Your task to perform on an android device: Is it going to rain this weekend? Image 0: 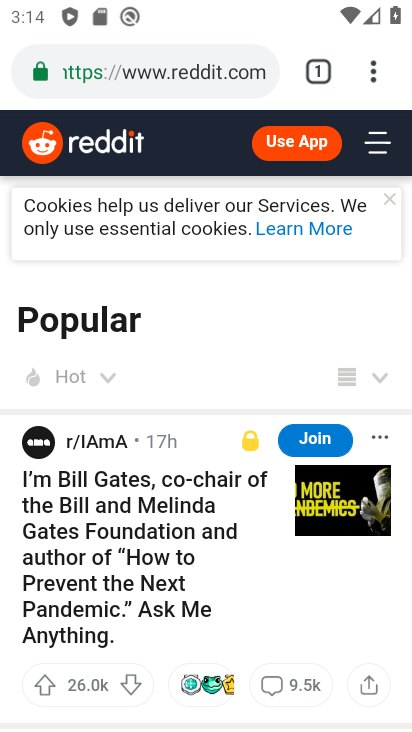
Step 0: press home button
Your task to perform on an android device: Is it going to rain this weekend? Image 1: 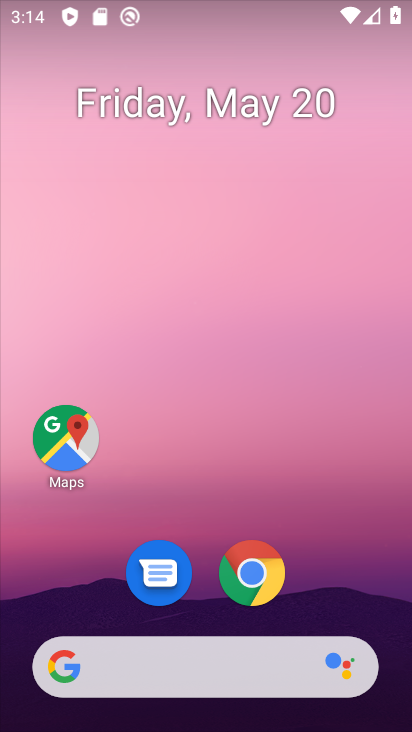
Step 1: drag from (203, 628) to (119, 41)
Your task to perform on an android device: Is it going to rain this weekend? Image 2: 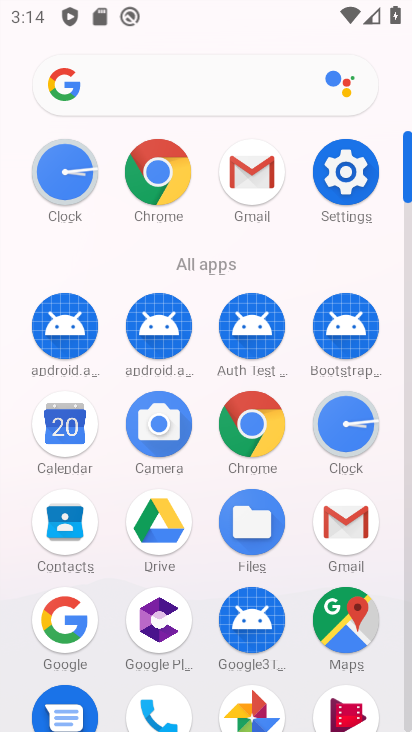
Step 2: click (66, 621)
Your task to perform on an android device: Is it going to rain this weekend? Image 3: 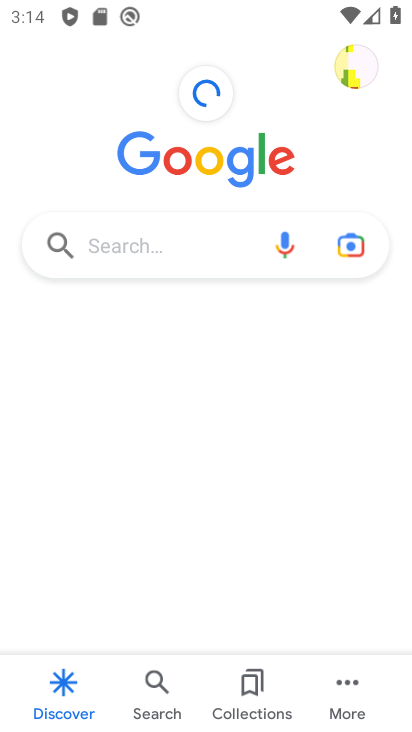
Step 3: click (124, 259)
Your task to perform on an android device: Is it going to rain this weekend? Image 4: 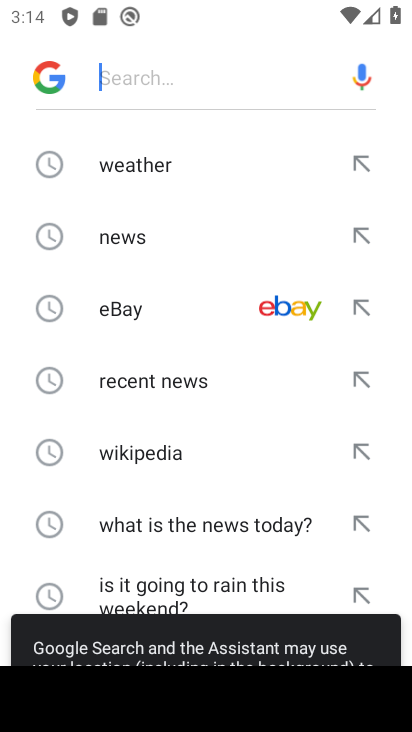
Step 4: click (144, 169)
Your task to perform on an android device: Is it going to rain this weekend? Image 5: 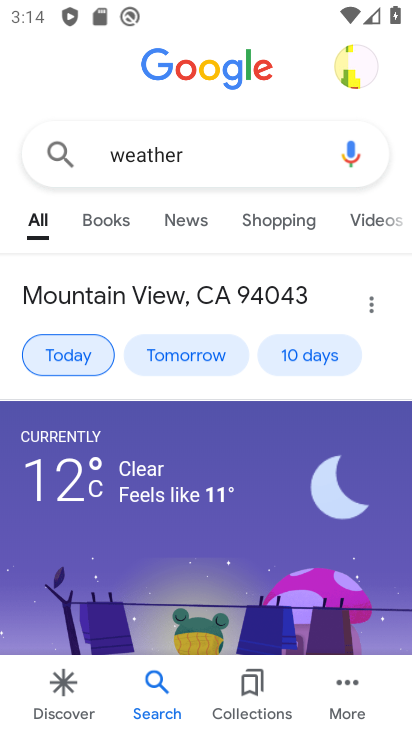
Step 5: click (300, 358)
Your task to perform on an android device: Is it going to rain this weekend? Image 6: 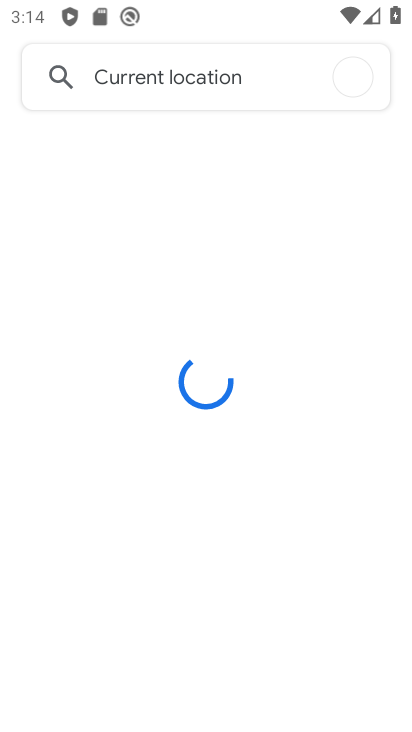
Step 6: click (300, 358)
Your task to perform on an android device: Is it going to rain this weekend? Image 7: 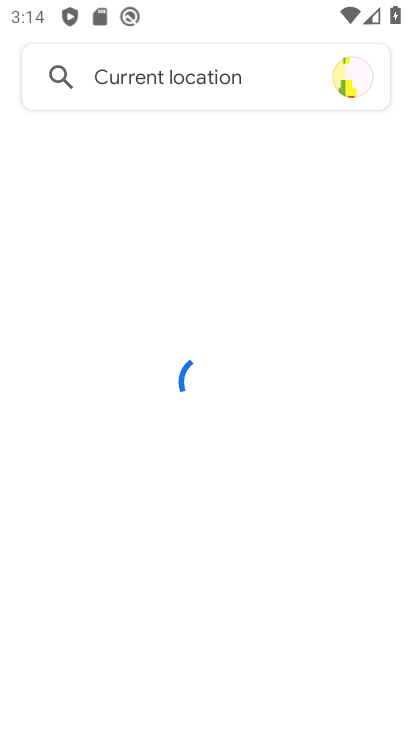
Step 7: task complete